Your task to perform on an android device: delete location history Image 0: 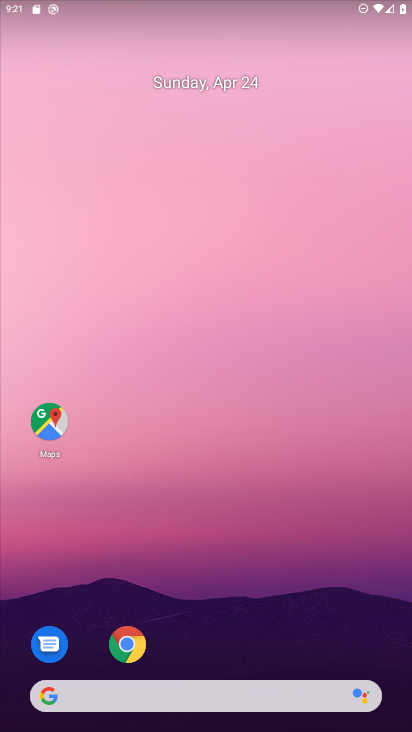
Step 0: drag from (190, 667) to (393, 426)
Your task to perform on an android device: delete location history Image 1: 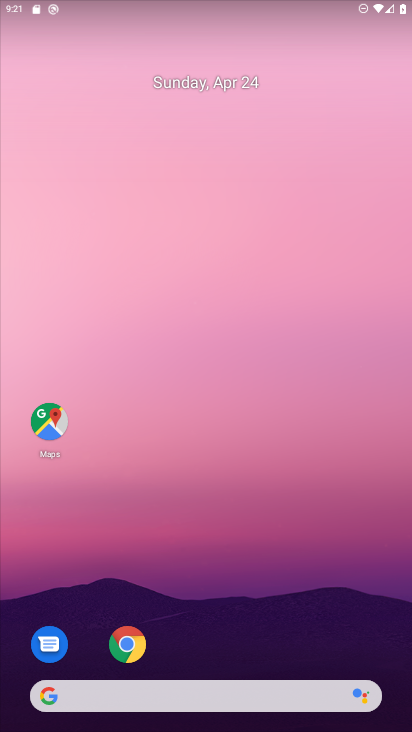
Step 1: drag from (229, 674) to (112, 17)
Your task to perform on an android device: delete location history Image 2: 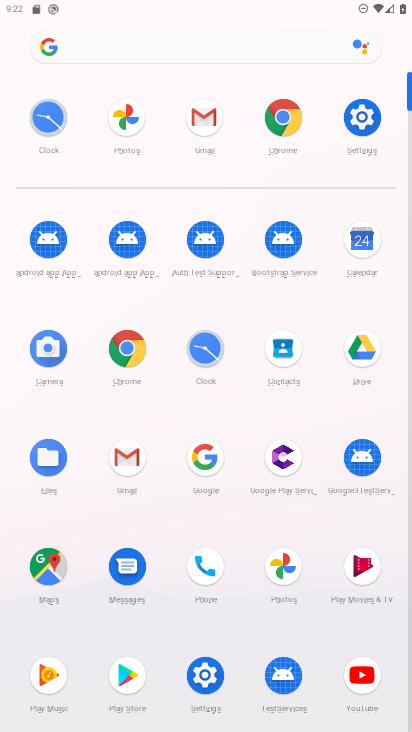
Step 2: click (47, 580)
Your task to perform on an android device: delete location history Image 3: 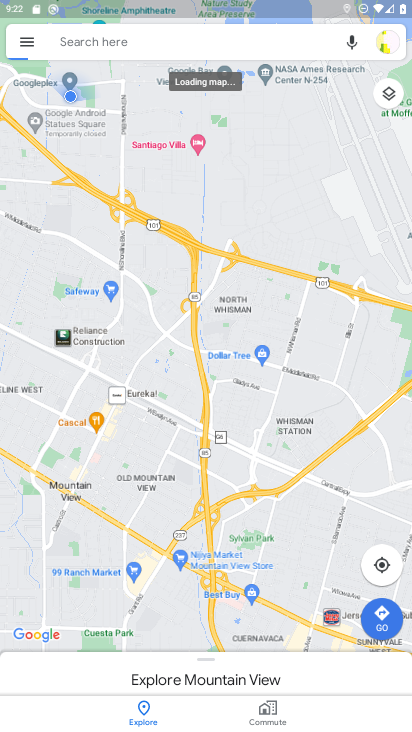
Step 3: click (27, 44)
Your task to perform on an android device: delete location history Image 4: 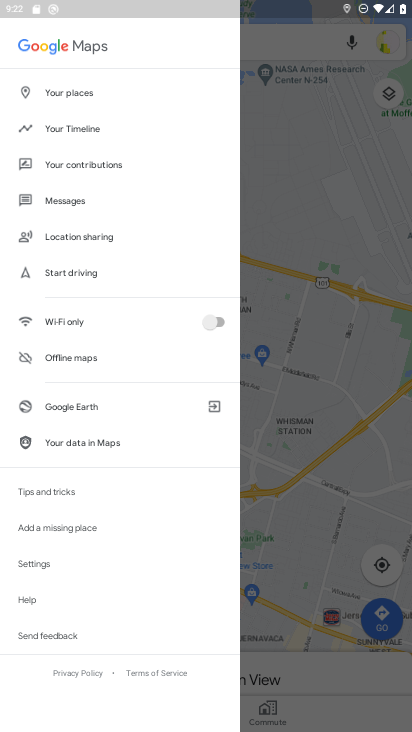
Step 4: click (113, 129)
Your task to perform on an android device: delete location history Image 5: 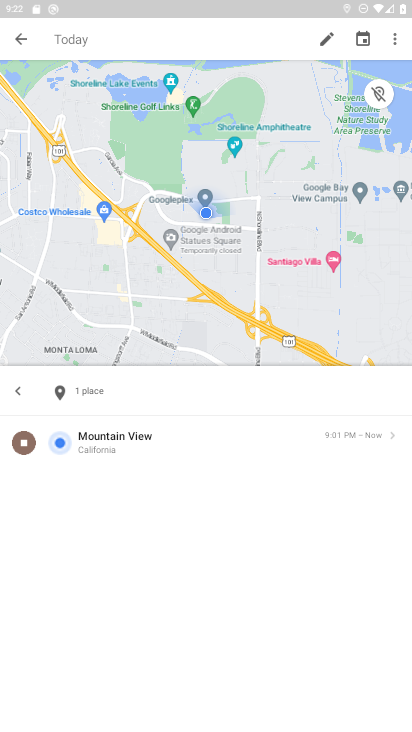
Step 5: click (387, 43)
Your task to perform on an android device: delete location history Image 6: 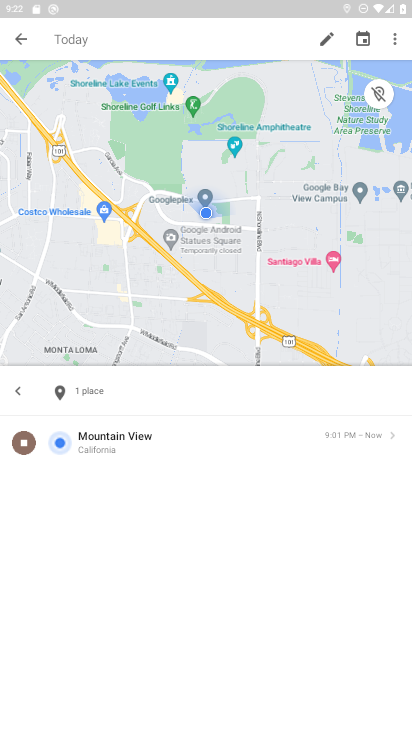
Step 6: click (392, 48)
Your task to perform on an android device: delete location history Image 7: 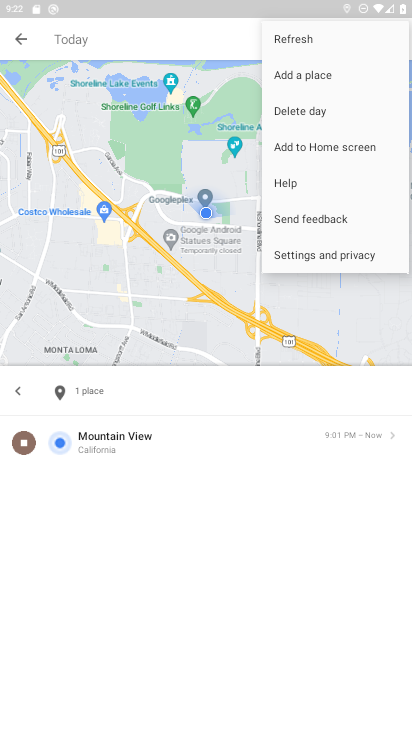
Step 7: click (354, 242)
Your task to perform on an android device: delete location history Image 8: 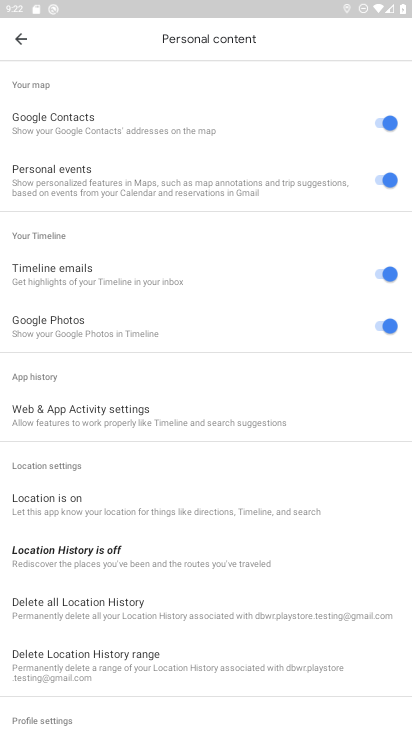
Step 8: click (78, 617)
Your task to perform on an android device: delete location history Image 9: 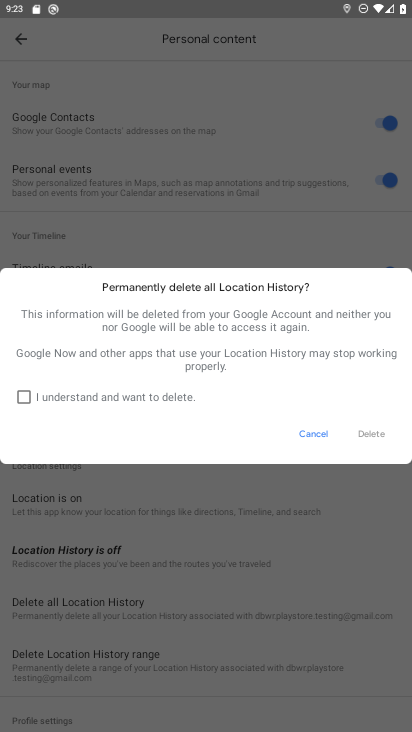
Step 9: click (16, 393)
Your task to perform on an android device: delete location history Image 10: 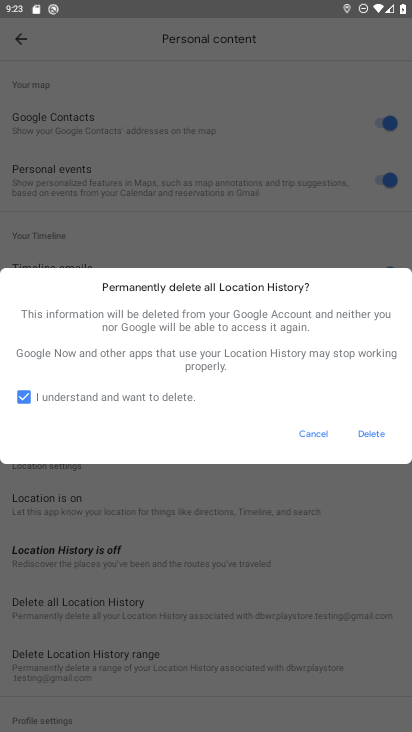
Step 10: click (361, 426)
Your task to perform on an android device: delete location history Image 11: 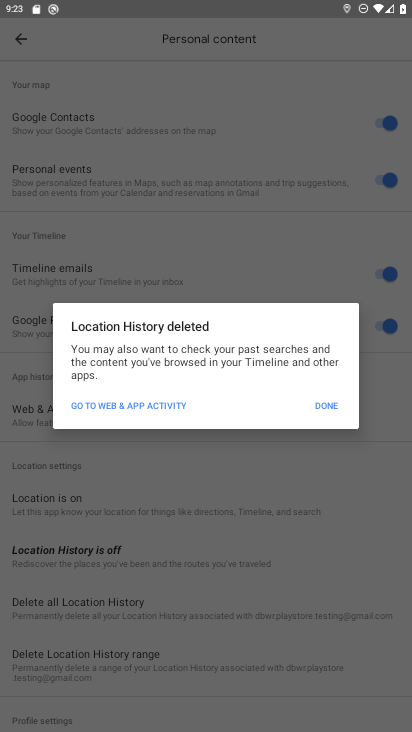
Step 11: click (319, 408)
Your task to perform on an android device: delete location history Image 12: 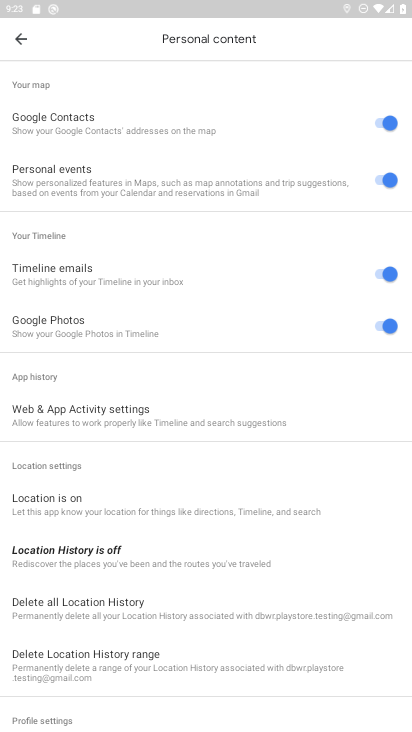
Step 12: task complete